Your task to perform on an android device: open the mobile data screen to see how much data has been used Image 0: 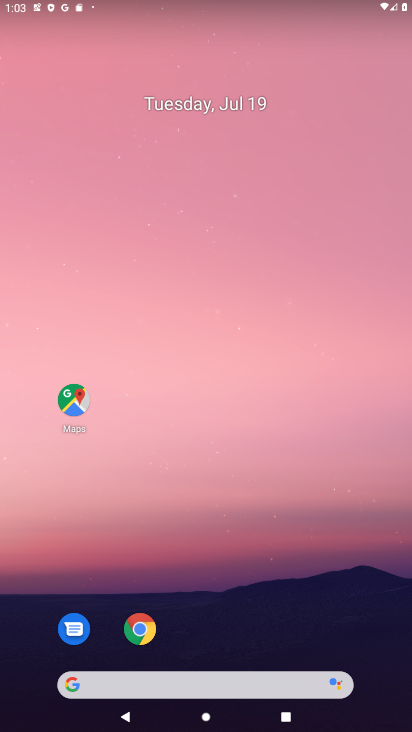
Step 0: click (217, 0)
Your task to perform on an android device: open the mobile data screen to see how much data has been used Image 1: 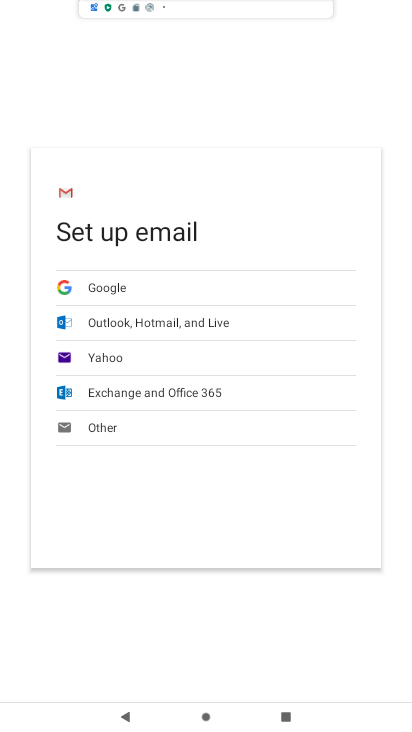
Step 1: press home button
Your task to perform on an android device: open the mobile data screen to see how much data has been used Image 2: 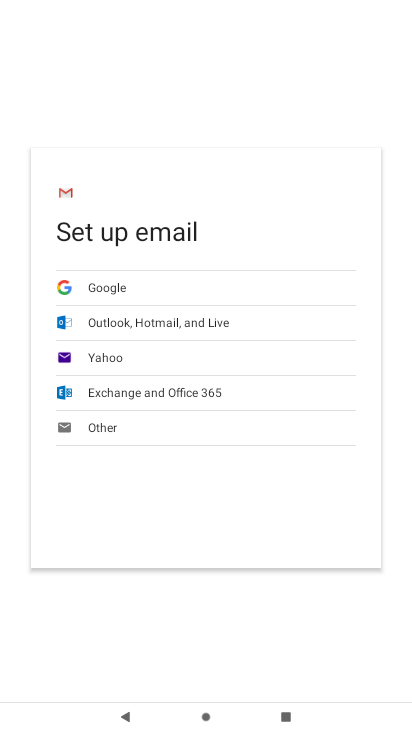
Step 2: drag from (217, 0) to (405, 358)
Your task to perform on an android device: open the mobile data screen to see how much data has been used Image 3: 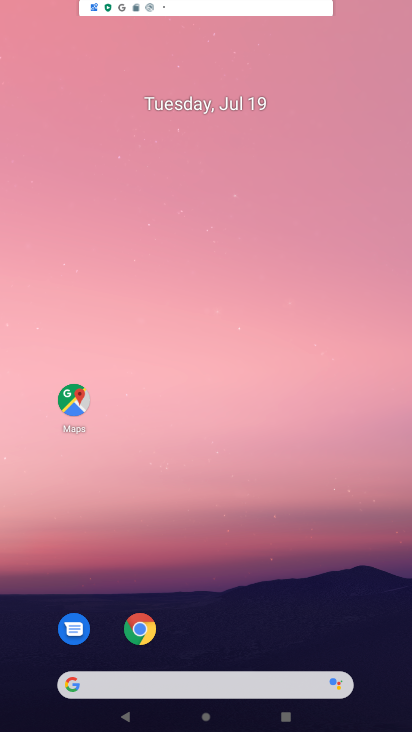
Step 3: drag from (227, 392) to (262, 176)
Your task to perform on an android device: open the mobile data screen to see how much data has been used Image 4: 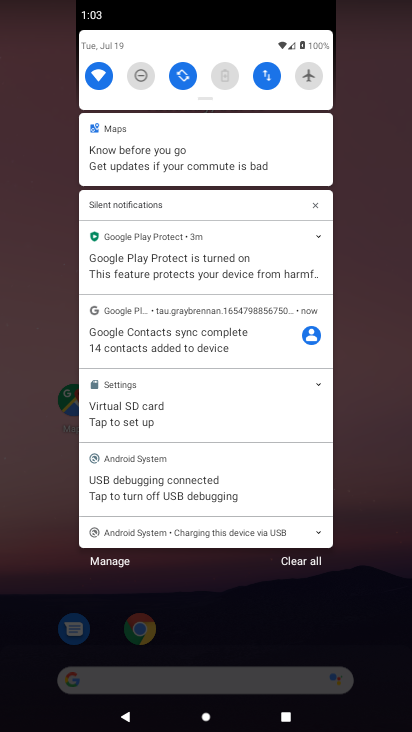
Step 4: drag from (210, 620) to (78, 2)
Your task to perform on an android device: open the mobile data screen to see how much data has been used Image 5: 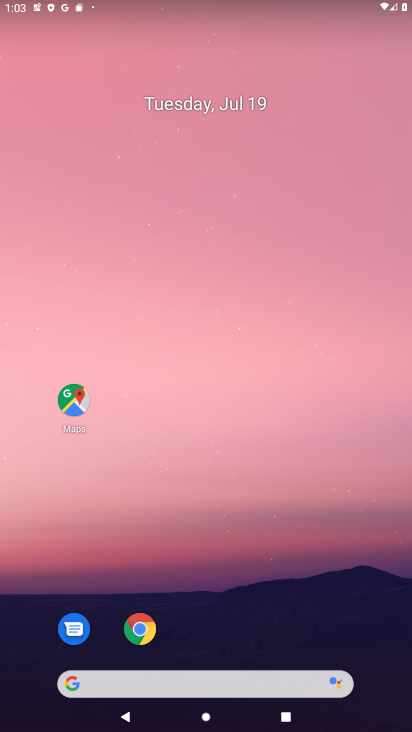
Step 5: drag from (204, 639) to (272, 3)
Your task to perform on an android device: open the mobile data screen to see how much data has been used Image 6: 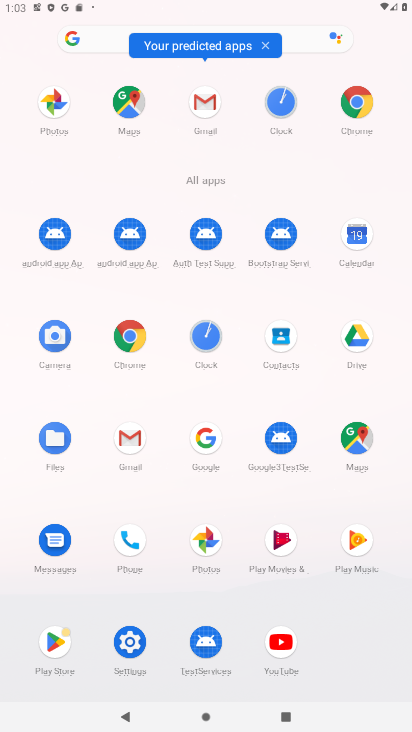
Step 6: click (133, 652)
Your task to perform on an android device: open the mobile data screen to see how much data has been used Image 7: 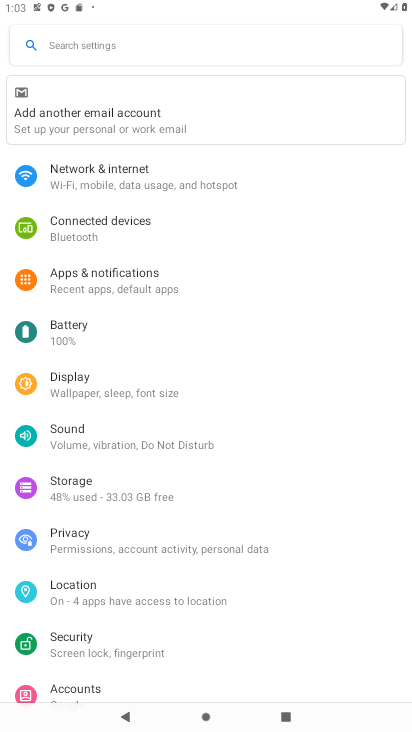
Step 7: click (119, 182)
Your task to perform on an android device: open the mobile data screen to see how much data has been used Image 8: 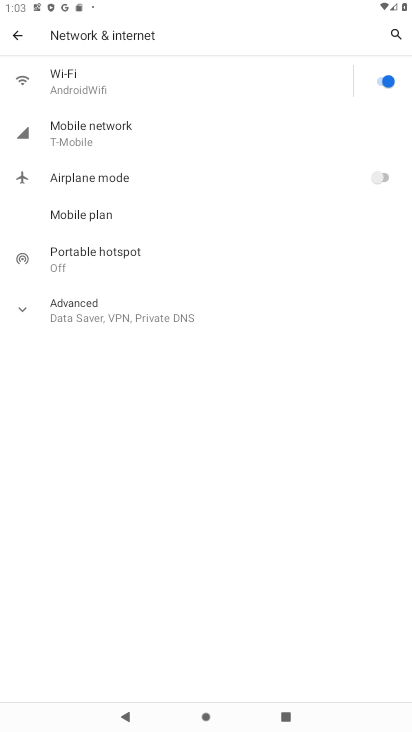
Step 8: click (103, 125)
Your task to perform on an android device: open the mobile data screen to see how much data has been used Image 9: 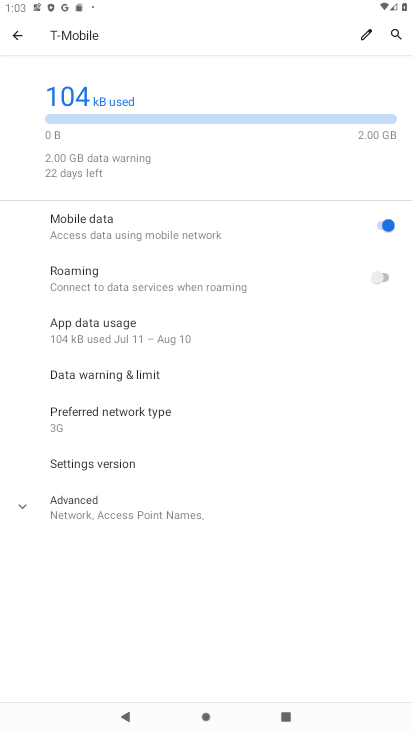
Step 9: click (131, 340)
Your task to perform on an android device: open the mobile data screen to see how much data has been used Image 10: 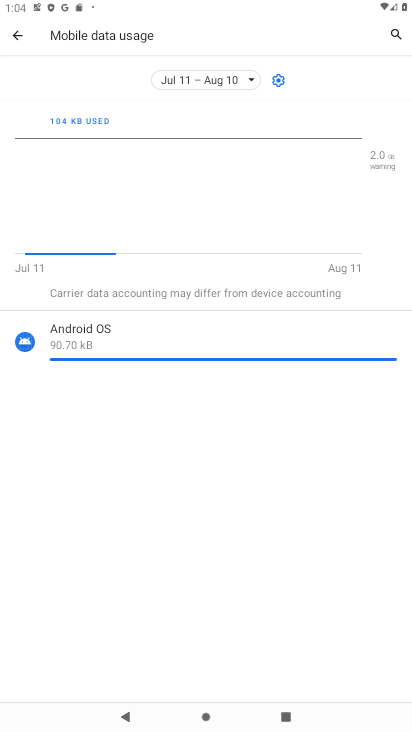
Step 10: task complete